Your task to perform on an android device: Go to privacy settings Image 0: 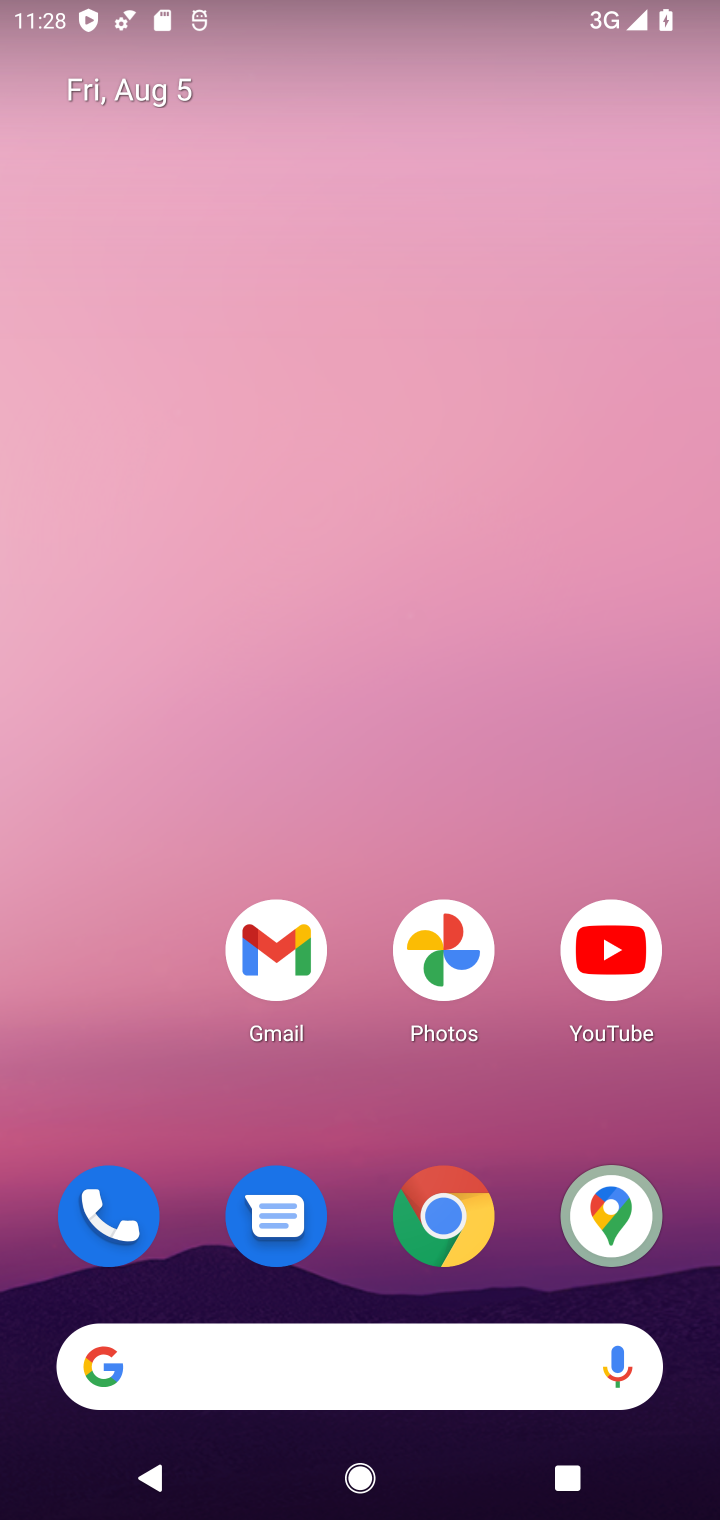
Step 0: drag from (366, 1346) to (374, 356)
Your task to perform on an android device: Go to privacy settings Image 1: 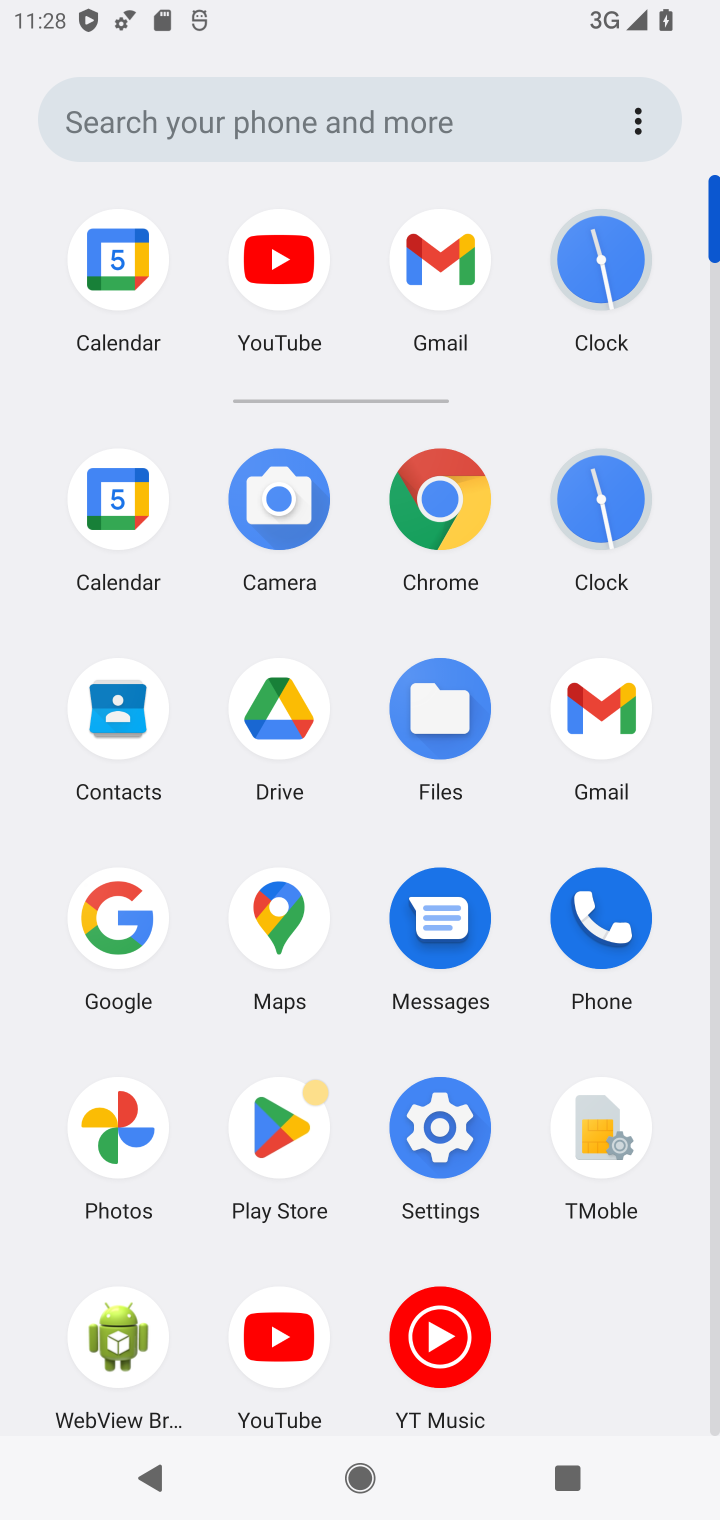
Step 1: click (446, 1095)
Your task to perform on an android device: Go to privacy settings Image 2: 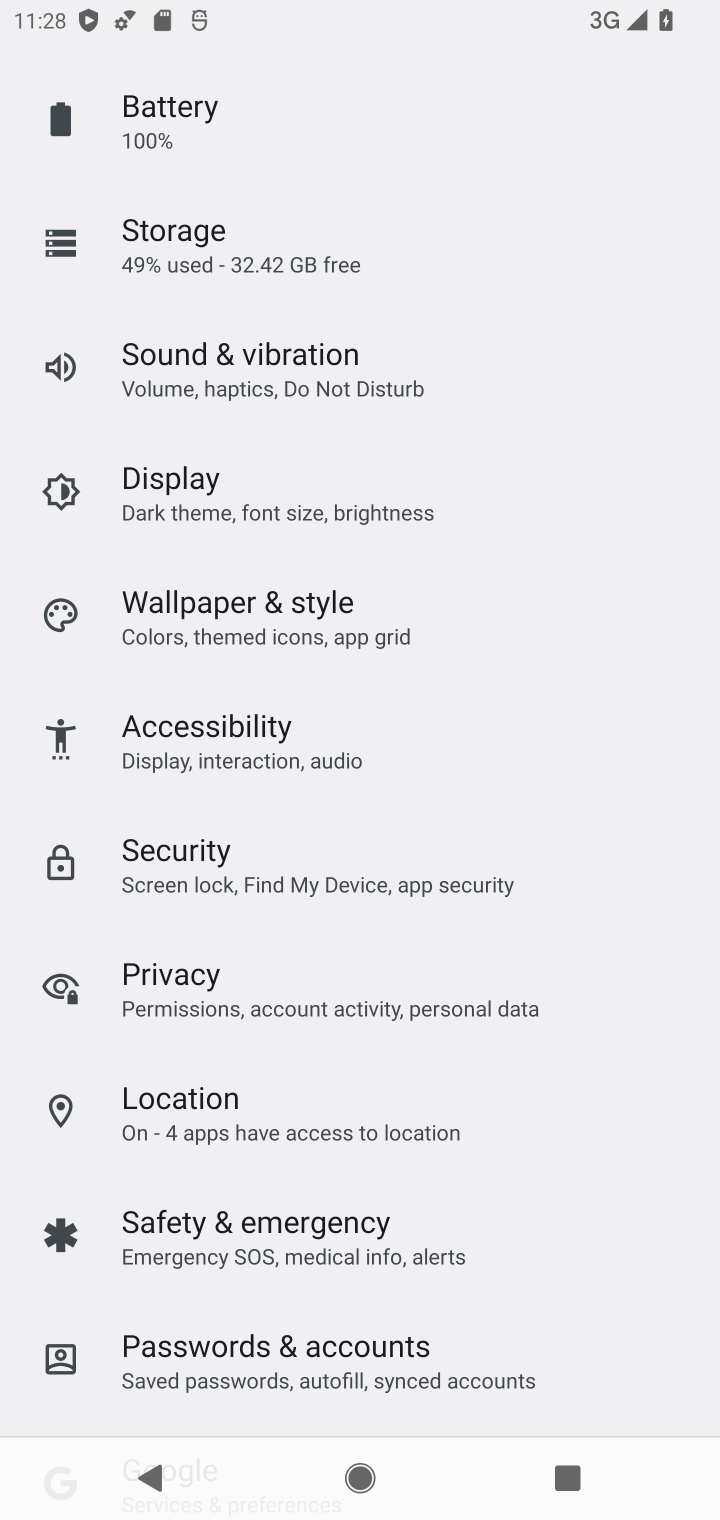
Step 2: click (224, 982)
Your task to perform on an android device: Go to privacy settings Image 3: 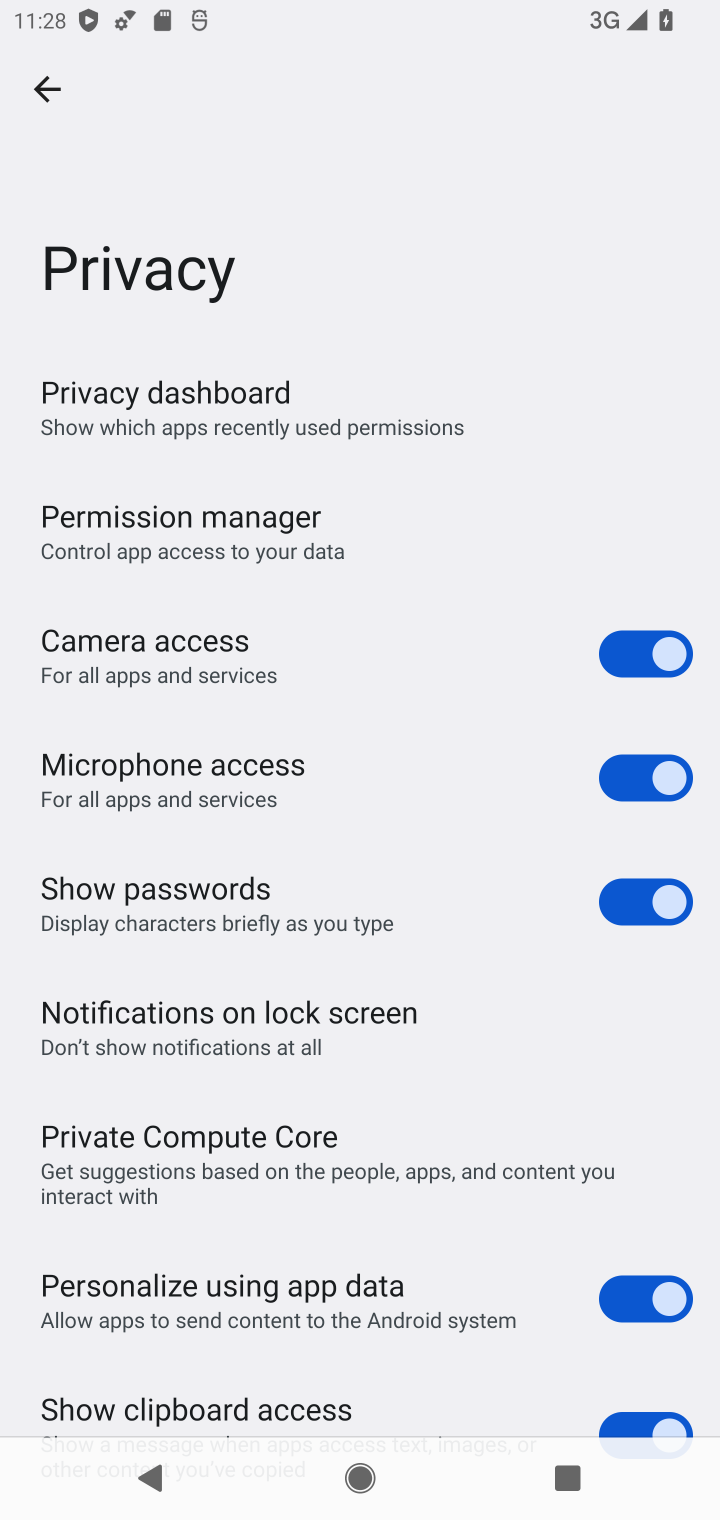
Step 3: task complete